Your task to perform on an android device: change alarm snooze length Image 0: 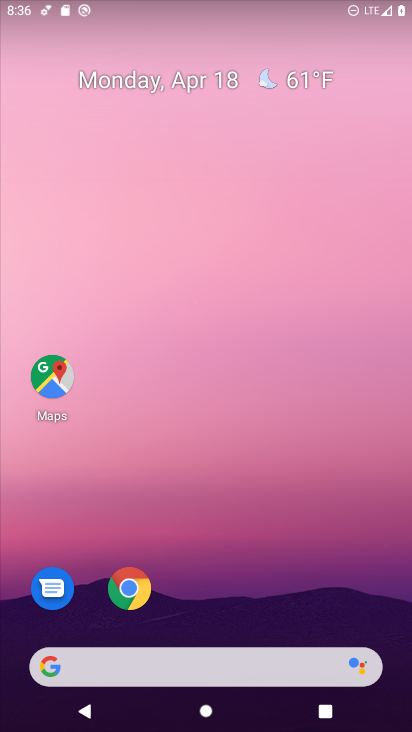
Step 0: drag from (383, 628) to (329, 108)
Your task to perform on an android device: change alarm snooze length Image 1: 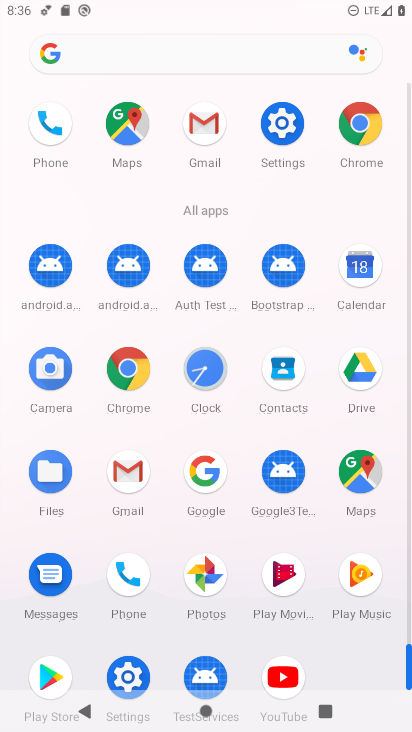
Step 1: click (205, 369)
Your task to perform on an android device: change alarm snooze length Image 2: 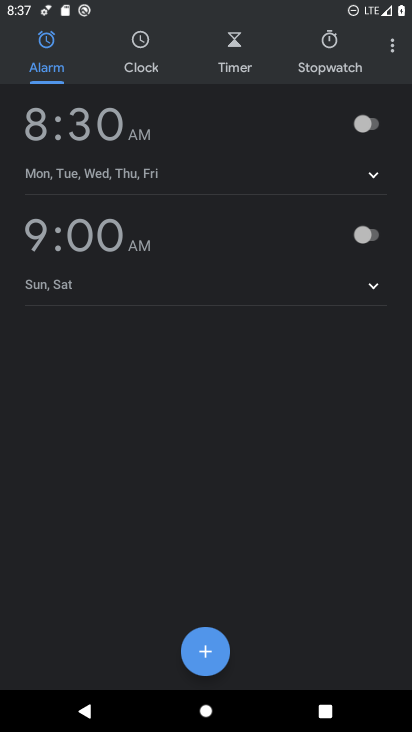
Step 2: click (393, 49)
Your task to perform on an android device: change alarm snooze length Image 3: 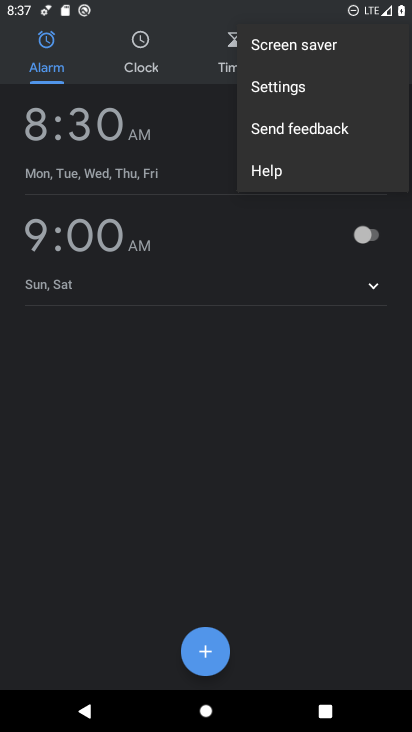
Step 3: click (268, 91)
Your task to perform on an android device: change alarm snooze length Image 4: 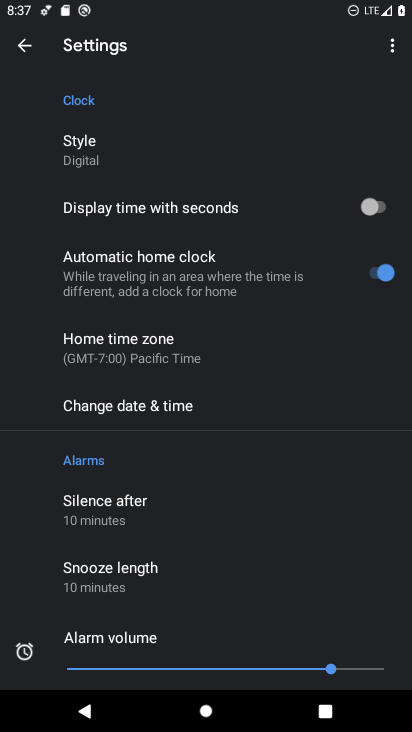
Step 4: click (83, 570)
Your task to perform on an android device: change alarm snooze length Image 5: 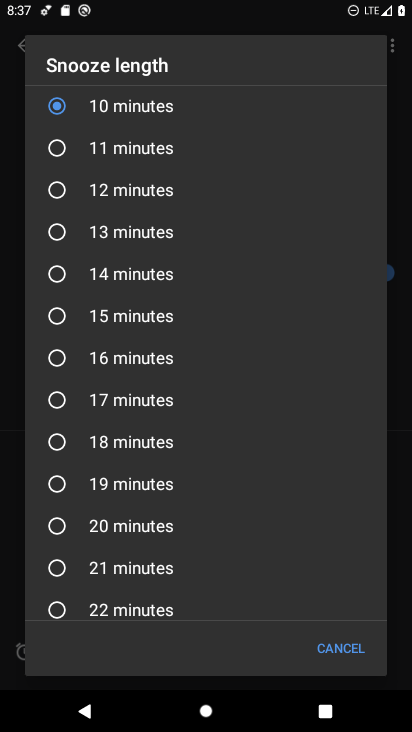
Step 5: click (59, 314)
Your task to perform on an android device: change alarm snooze length Image 6: 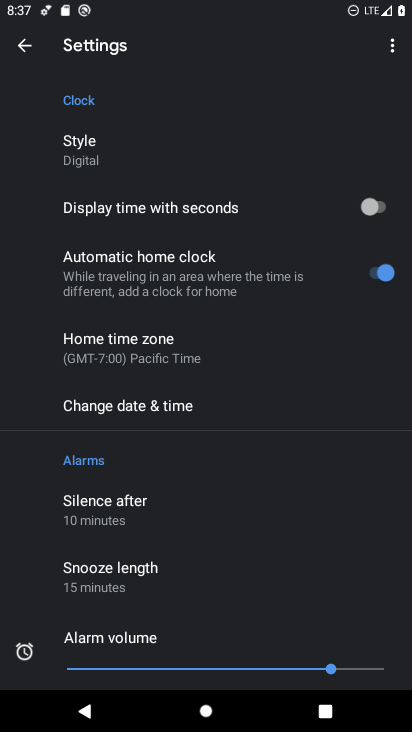
Step 6: task complete